Your task to perform on an android device: turn off wifi Image 0: 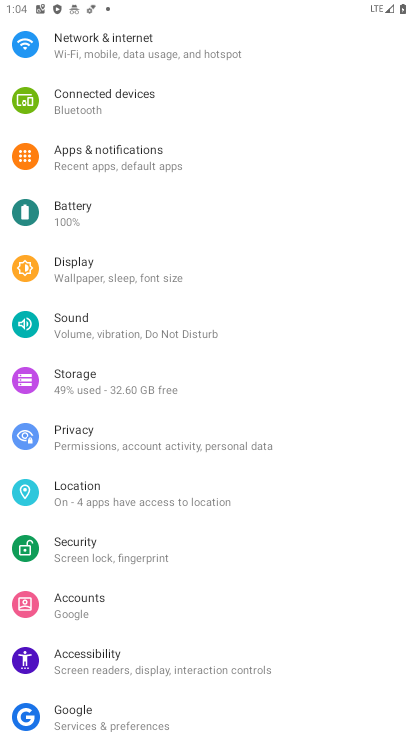
Step 0: press home button
Your task to perform on an android device: turn off wifi Image 1: 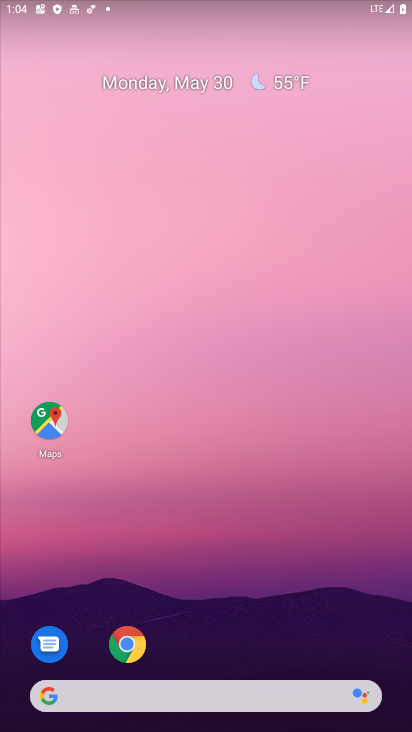
Step 1: drag from (311, 644) to (187, 25)
Your task to perform on an android device: turn off wifi Image 2: 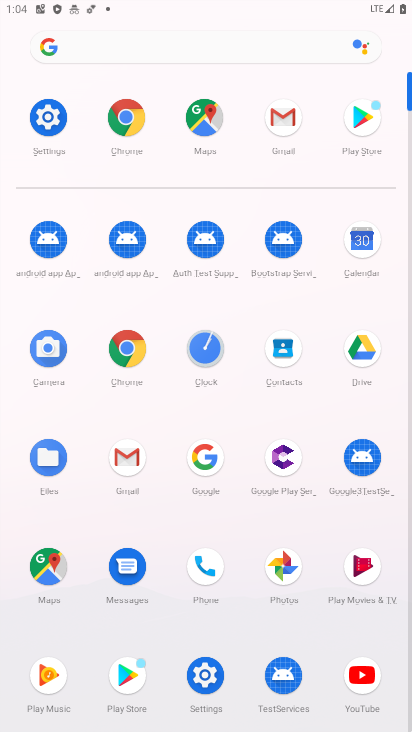
Step 2: click (35, 113)
Your task to perform on an android device: turn off wifi Image 3: 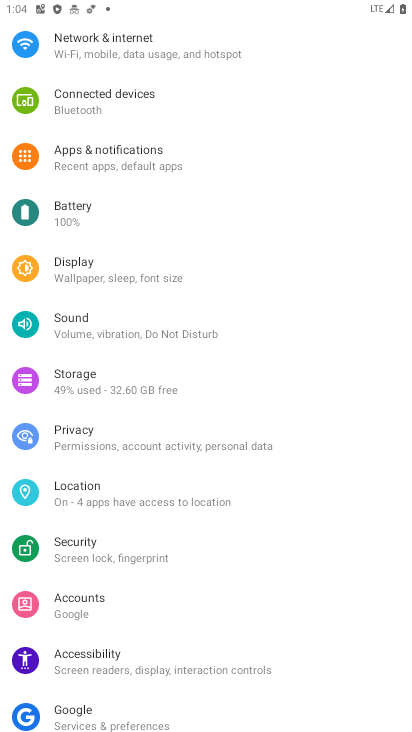
Step 3: drag from (136, 161) to (110, 398)
Your task to perform on an android device: turn off wifi Image 4: 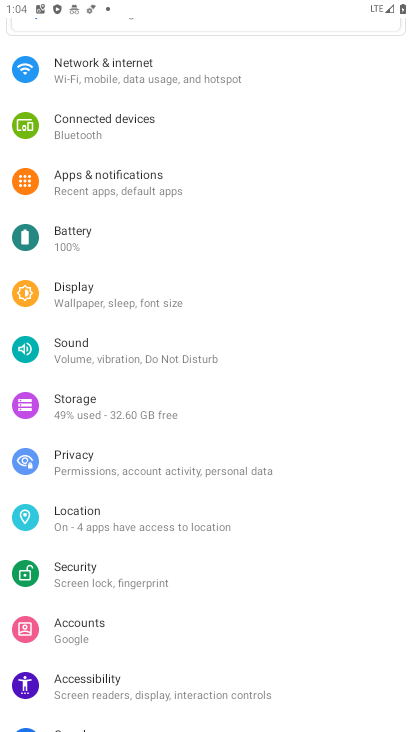
Step 4: click (133, 86)
Your task to perform on an android device: turn off wifi Image 5: 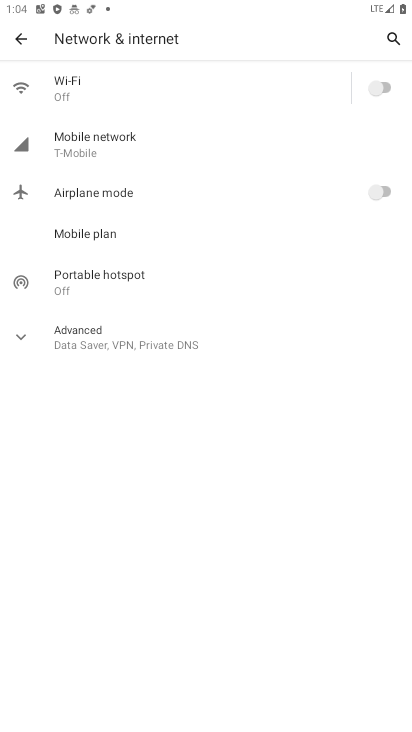
Step 5: task complete